Your task to perform on an android device: open a bookmark in the chrome app Image 0: 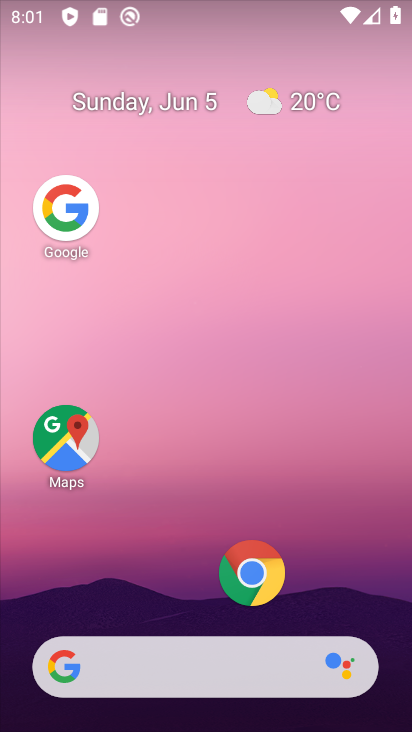
Step 0: click (261, 575)
Your task to perform on an android device: open a bookmark in the chrome app Image 1: 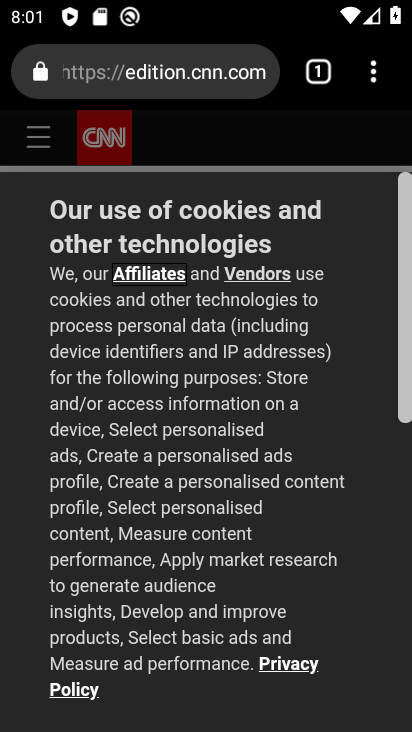
Step 1: click (378, 79)
Your task to perform on an android device: open a bookmark in the chrome app Image 2: 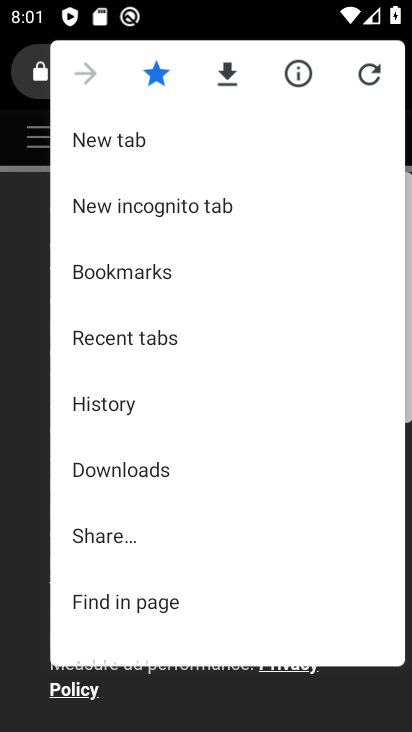
Step 2: click (145, 281)
Your task to perform on an android device: open a bookmark in the chrome app Image 3: 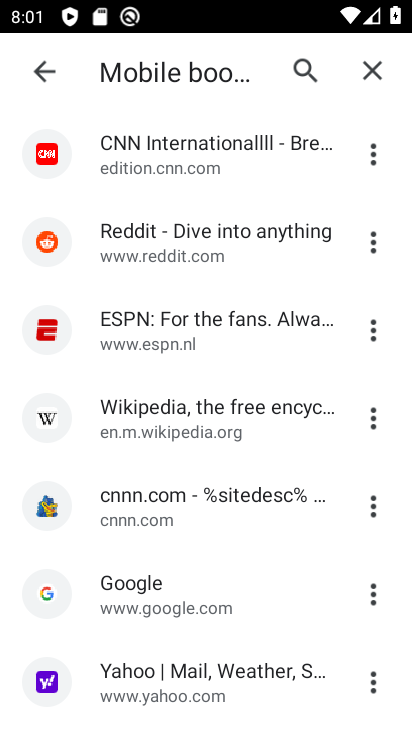
Step 3: task complete